Your task to perform on an android device: add a contact Image 0: 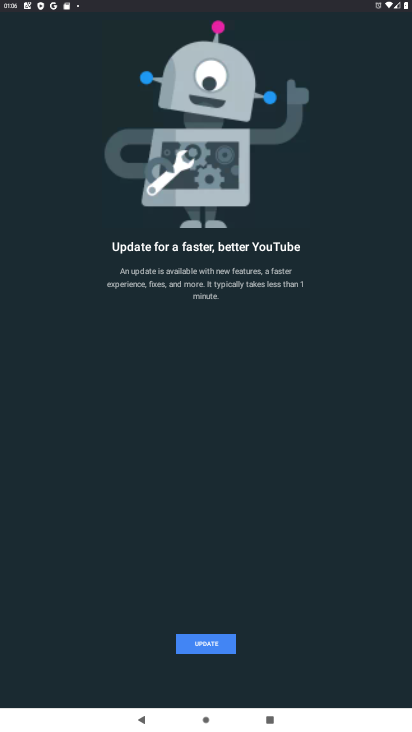
Step 0: press home button
Your task to perform on an android device: add a contact Image 1: 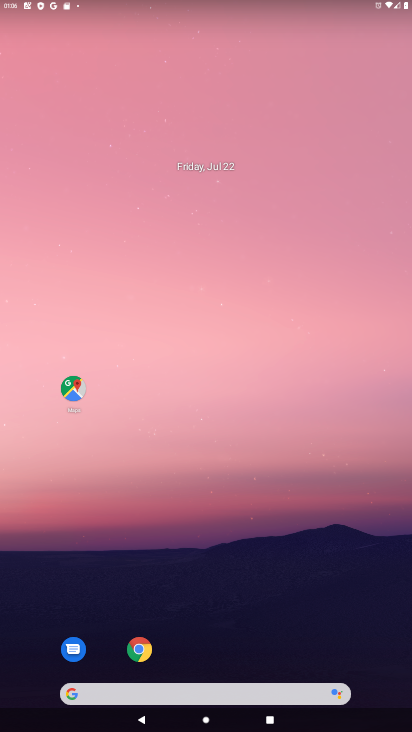
Step 1: drag from (229, 606) to (193, 98)
Your task to perform on an android device: add a contact Image 2: 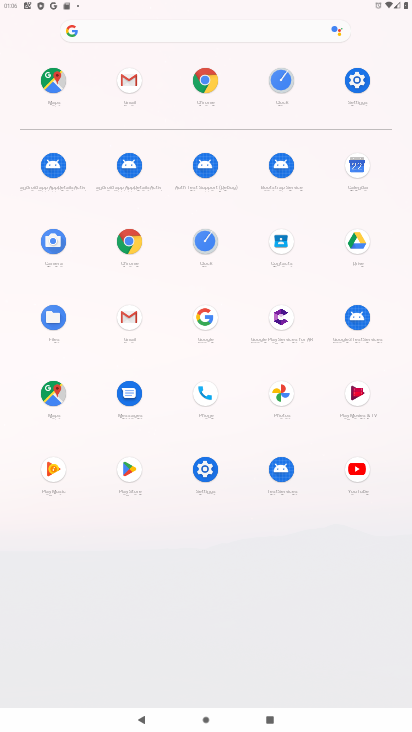
Step 2: click (285, 236)
Your task to perform on an android device: add a contact Image 3: 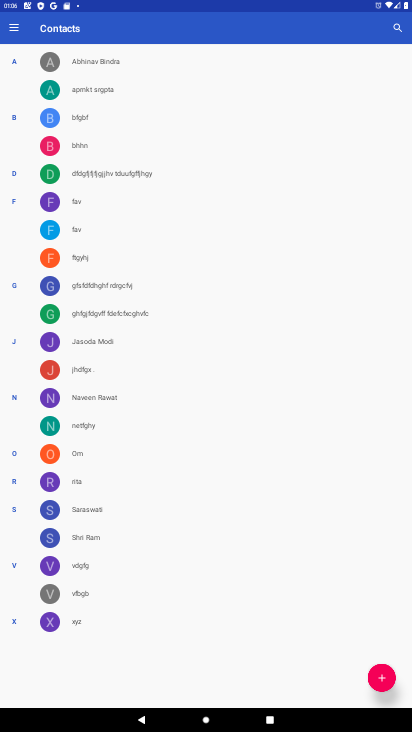
Step 3: click (378, 684)
Your task to perform on an android device: add a contact Image 4: 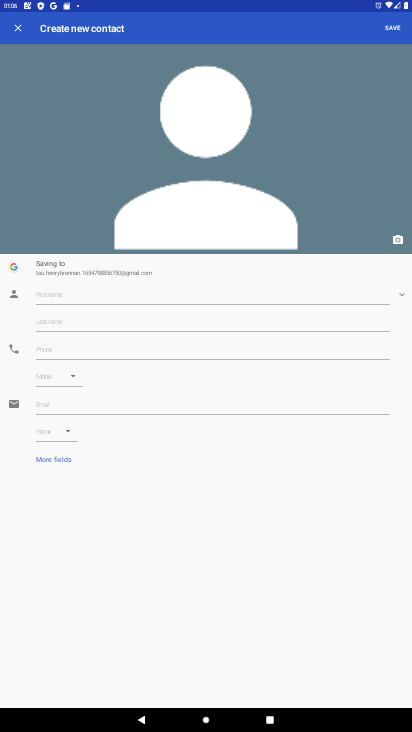
Step 4: click (183, 290)
Your task to perform on an android device: add a contact Image 5: 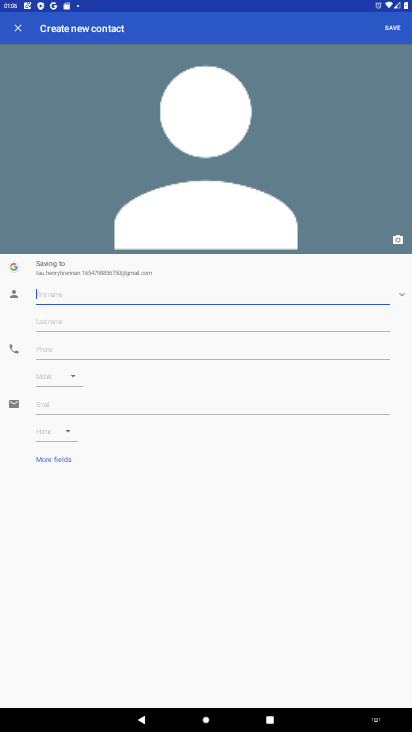
Step 5: type "gobind"
Your task to perform on an android device: add a contact Image 6: 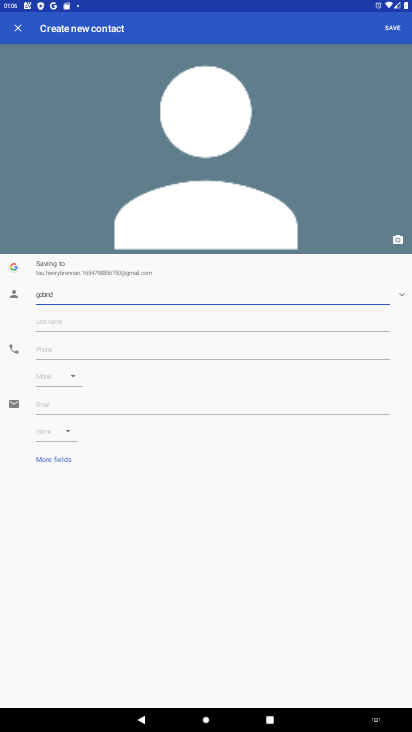
Step 6: click (381, 26)
Your task to perform on an android device: add a contact Image 7: 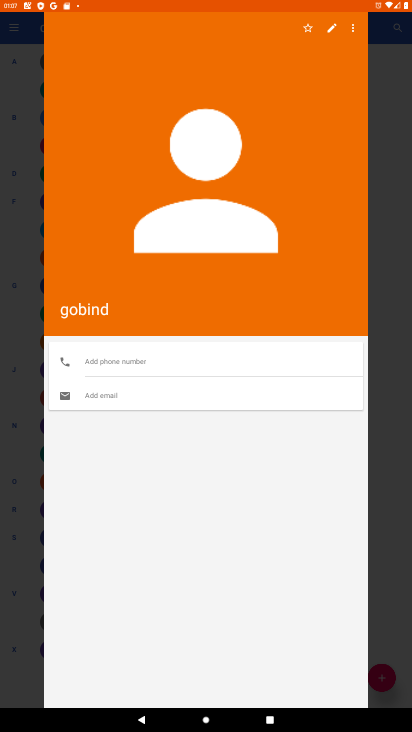
Step 7: task complete